Your task to perform on an android device: Open privacy settings Image 0: 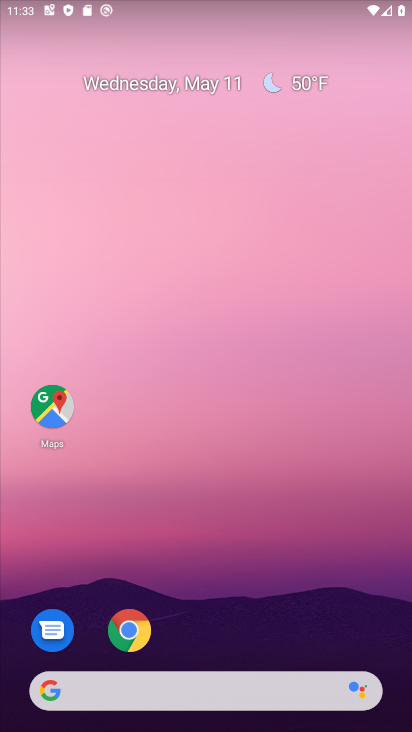
Step 0: drag from (218, 723) to (211, 172)
Your task to perform on an android device: Open privacy settings Image 1: 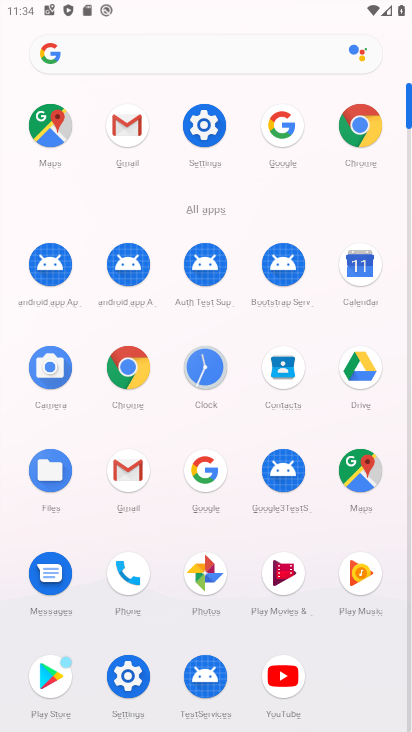
Step 1: click (205, 123)
Your task to perform on an android device: Open privacy settings Image 2: 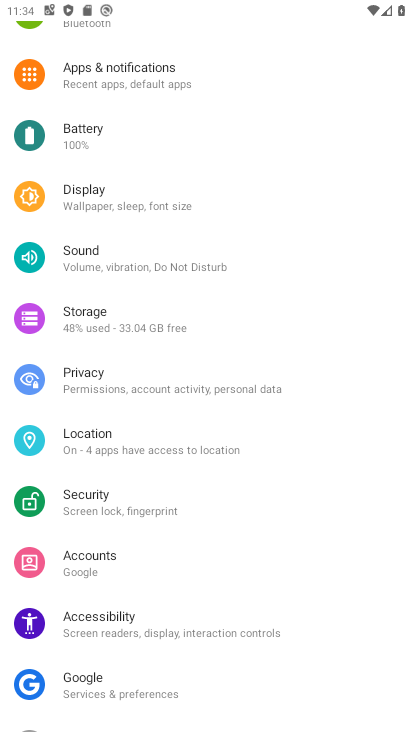
Step 2: click (102, 385)
Your task to perform on an android device: Open privacy settings Image 3: 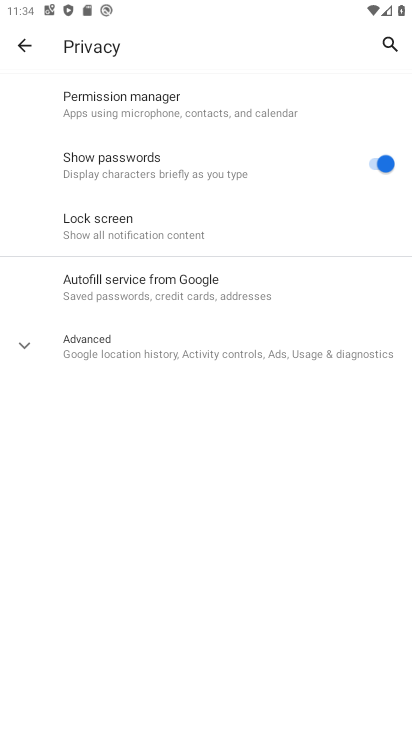
Step 3: task complete